Your task to perform on an android device: turn on bluetooth scan Image 0: 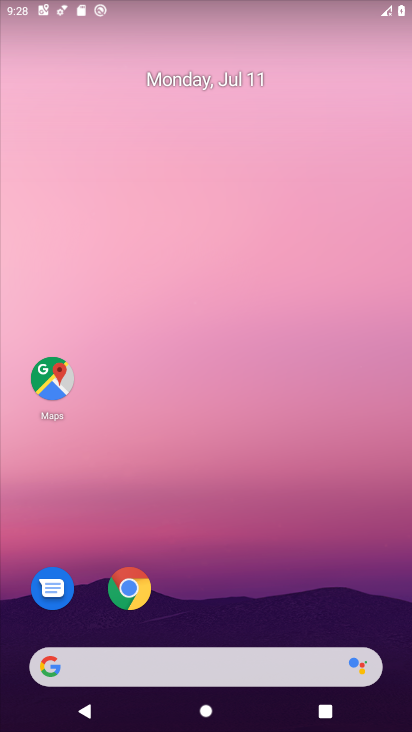
Step 0: drag from (237, 558) to (214, 393)
Your task to perform on an android device: turn on bluetooth scan Image 1: 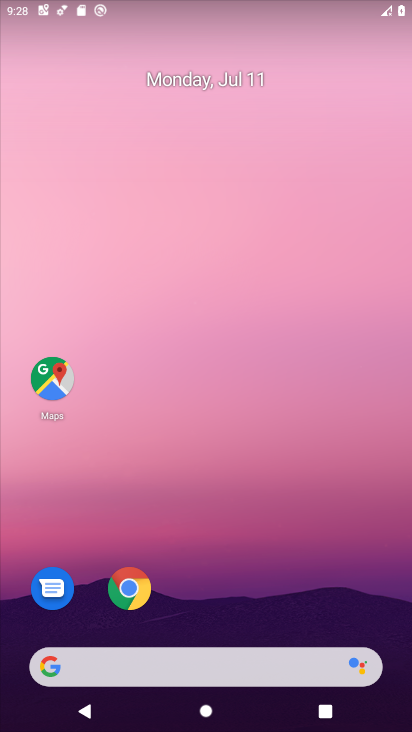
Step 1: drag from (270, 534) to (264, 389)
Your task to perform on an android device: turn on bluetooth scan Image 2: 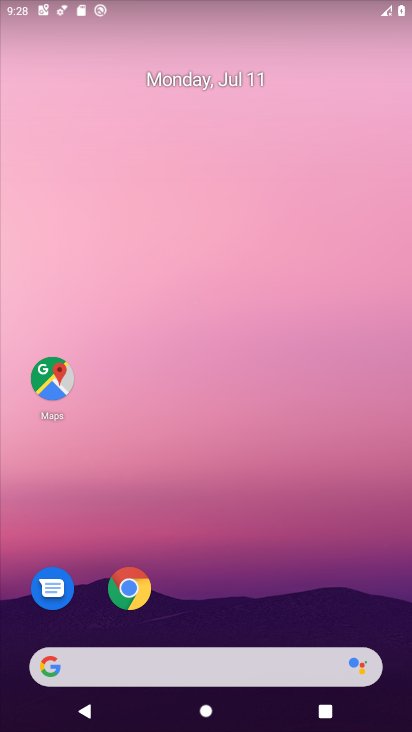
Step 2: drag from (230, 621) to (208, 39)
Your task to perform on an android device: turn on bluetooth scan Image 3: 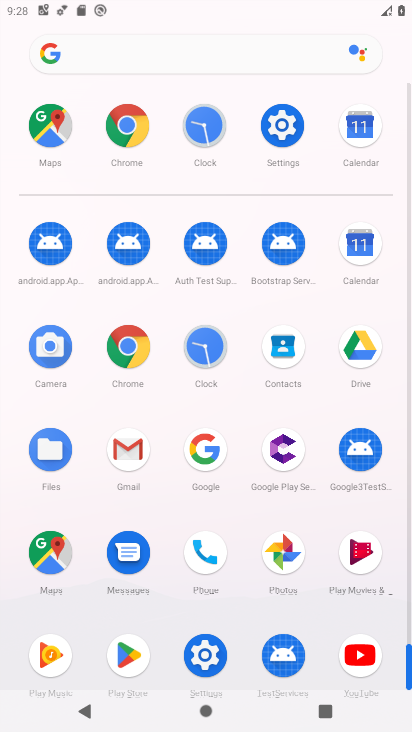
Step 3: click (283, 110)
Your task to perform on an android device: turn on bluetooth scan Image 4: 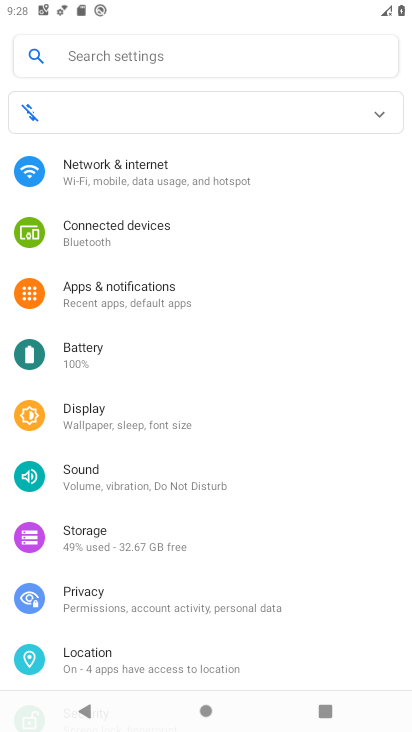
Step 4: click (202, 44)
Your task to perform on an android device: turn on bluetooth scan Image 5: 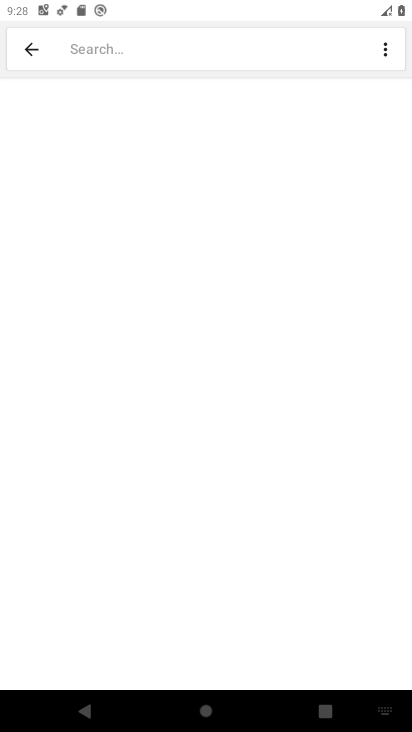
Step 5: type " bluetooth scan "
Your task to perform on an android device: turn on bluetooth scan Image 6: 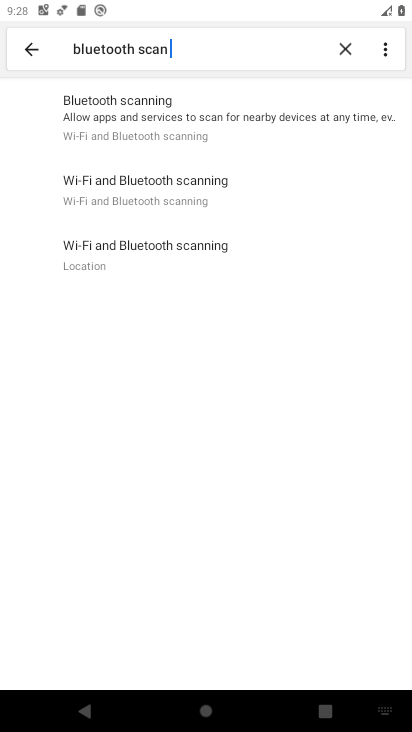
Step 6: click (279, 118)
Your task to perform on an android device: turn on bluetooth scan Image 7: 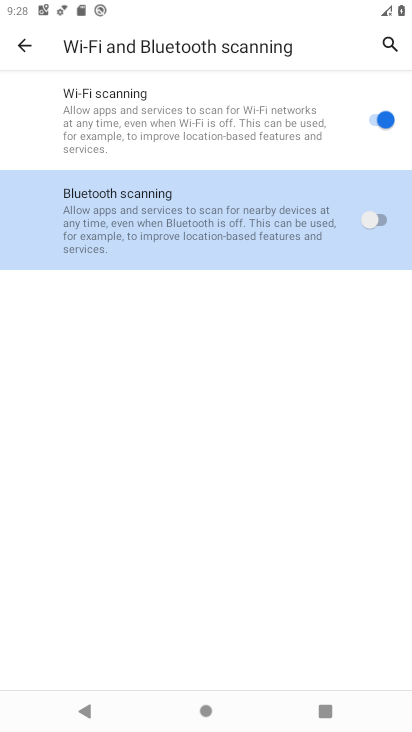
Step 7: click (371, 210)
Your task to perform on an android device: turn on bluetooth scan Image 8: 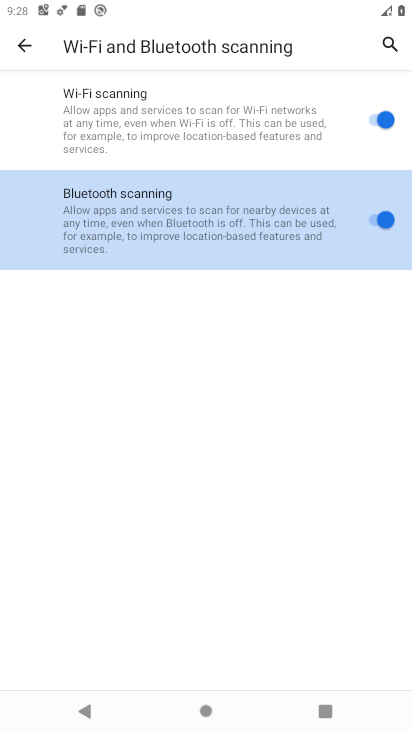
Step 8: task complete